Your task to perform on an android device: Open network settings Image 0: 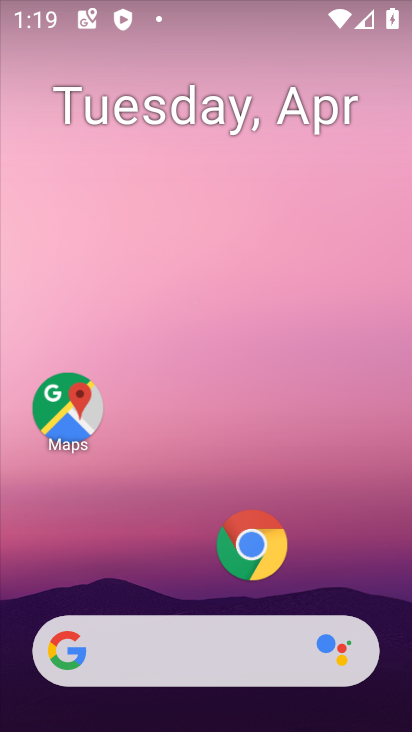
Step 0: drag from (169, 583) to (205, 223)
Your task to perform on an android device: Open network settings Image 1: 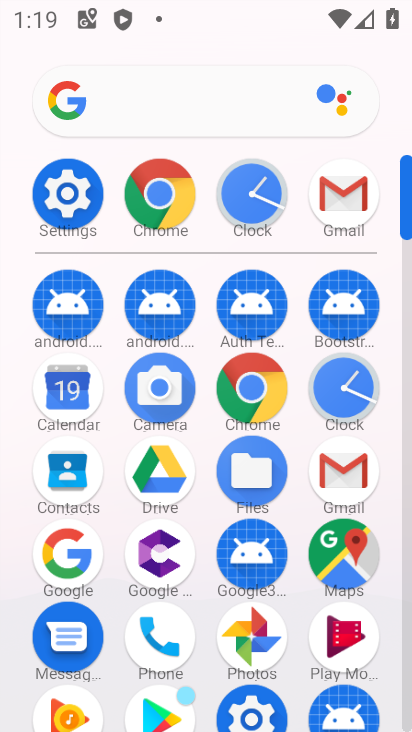
Step 1: click (62, 191)
Your task to perform on an android device: Open network settings Image 2: 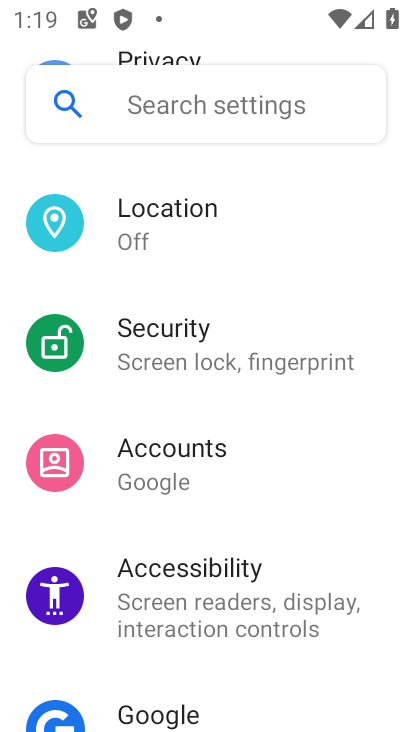
Step 2: drag from (260, 186) to (246, 614)
Your task to perform on an android device: Open network settings Image 3: 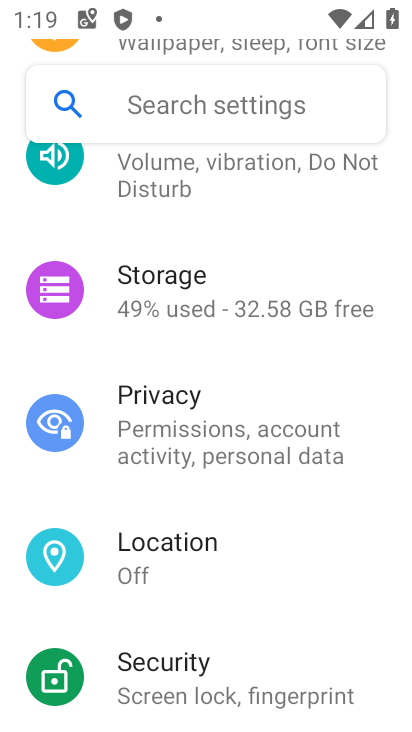
Step 3: drag from (265, 201) to (256, 708)
Your task to perform on an android device: Open network settings Image 4: 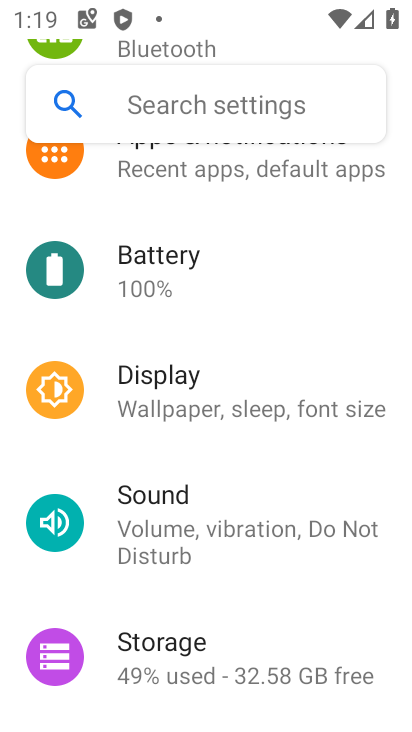
Step 4: drag from (274, 273) to (227, 695)
Your task to perform on an android device: Open network settings Image 5: 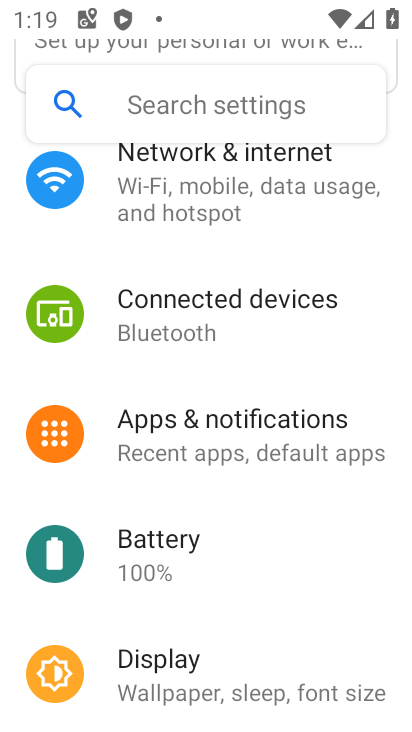
Step 5: drag from (225, 178) to (167, 570)
Your task to perform on an android device: Open network settings Image 6: 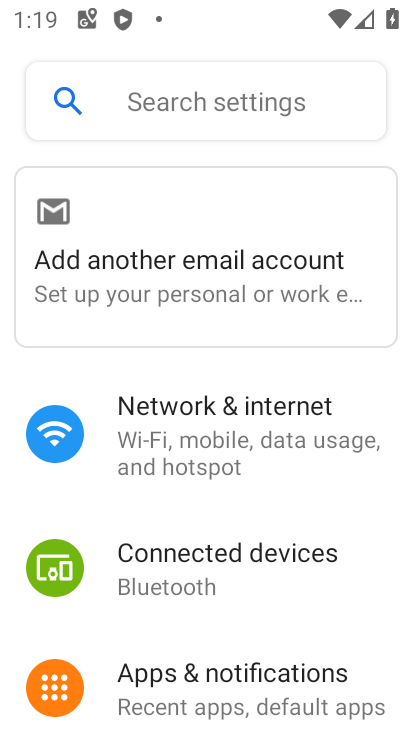
Step 6: click (186, 424)
Your task to perform on an android device: Open network settings Image 7: 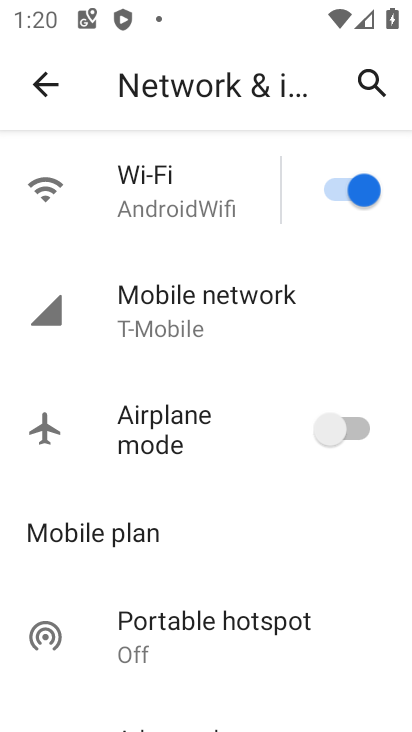
Step 7: task complete